Your task to perform on an android device: turn off airplane mode Image 0: 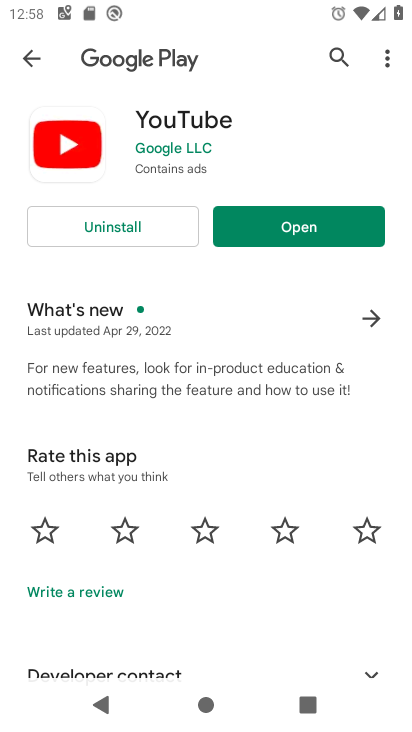
Step 0: press home button
Your task to perform on an android device: turn off airplane mode Image 1: 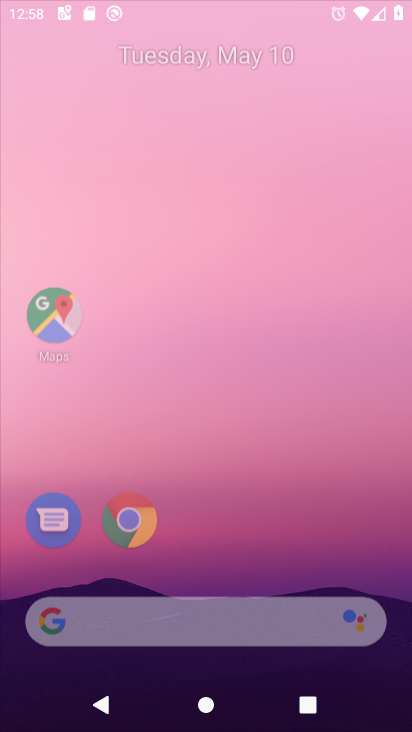
Step 1: task complete